Your task to perform on an android device: What's the weather going to be tomorrow? Image 0: 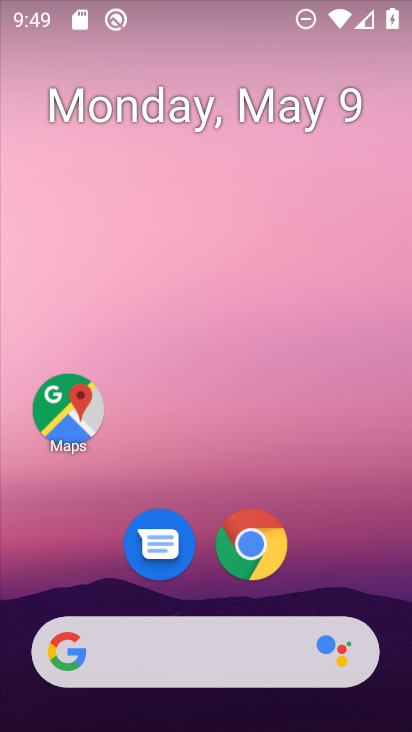
Step 0: drag from (324, 572) to (261, 72)
Your task to perform on an android device: What's the weather going to be tomorrow? Image 1: 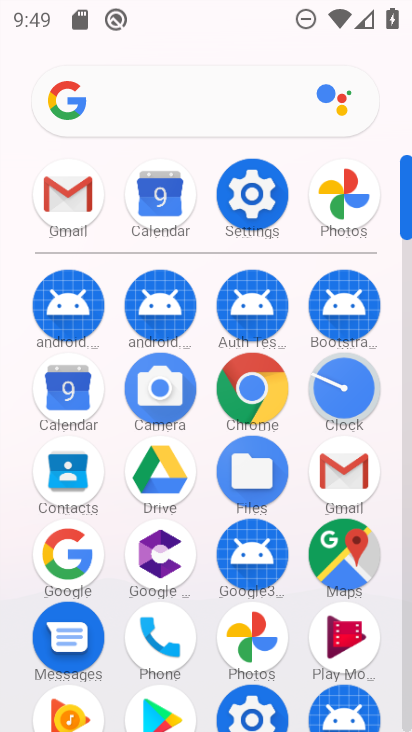
Step 1: click (163, 111)
Your task to perform on an android device: What's the weather going to be tomorrow? Image 2: 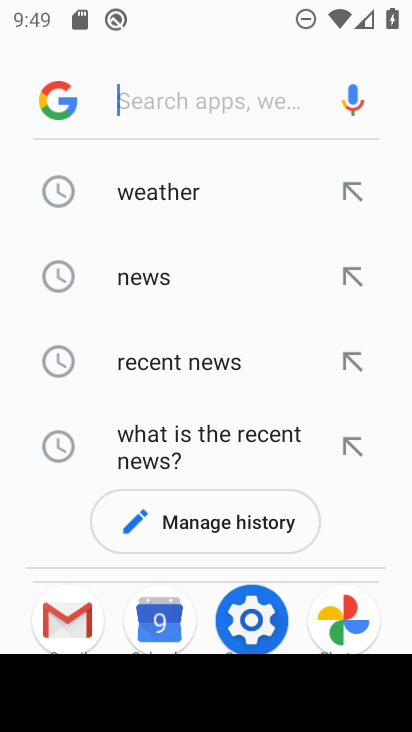
Step 2: click (144, 194)
Your task to perform on an android device: What's the weather going to be tomorrow? Image 3: 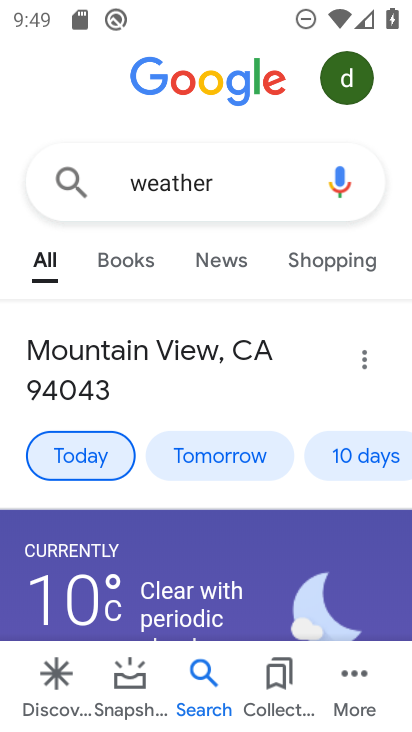
Step 3: click (225, 446)
Your task to perform on an android device: What's the weather going to be tomorrow? Image 4: 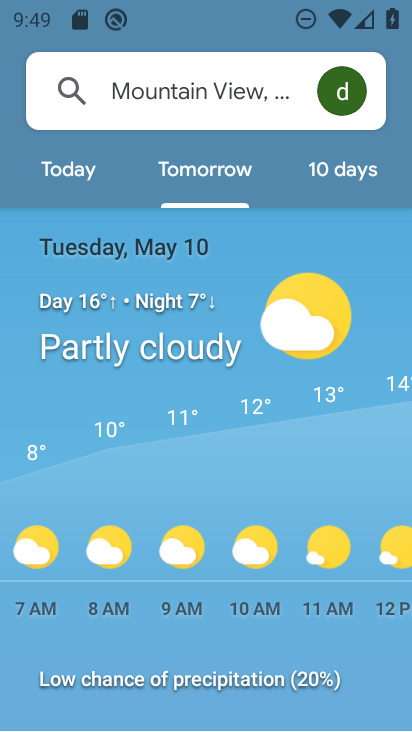
Step 4: task complete